Your task to perform on an android device: Show me recent news Image 0: 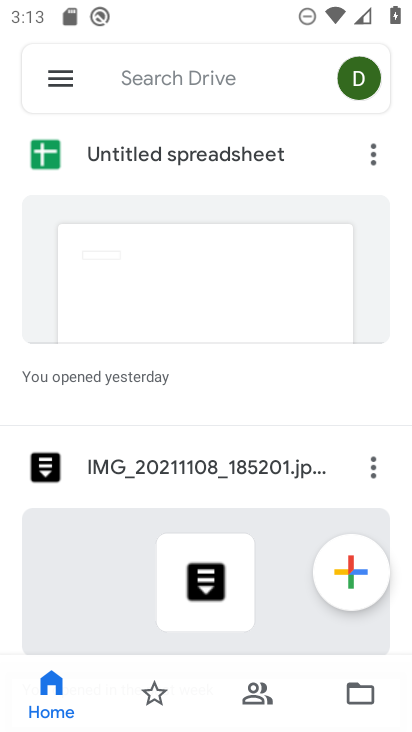
Step 0: press home button
Your task to perform on an android device: Show me recent news Image 1: 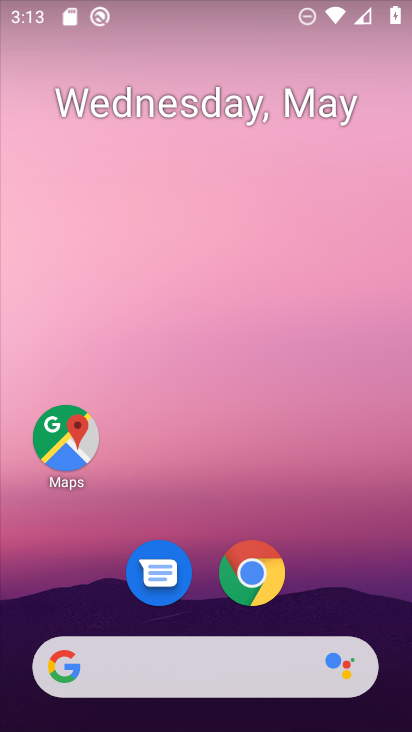
Step 1: drag from (328, 605) to (347, 73)
Your task to perform on an android device: Show me recent news Image 2: 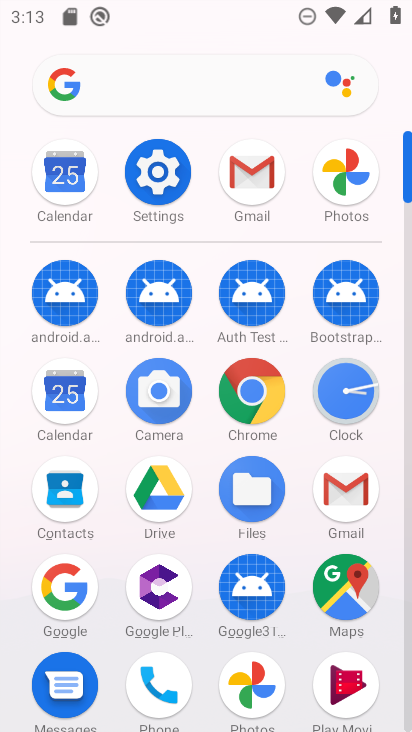
Step 2: click (130, 85)
Your task to perform on an android device: Show me recent news Image 3: 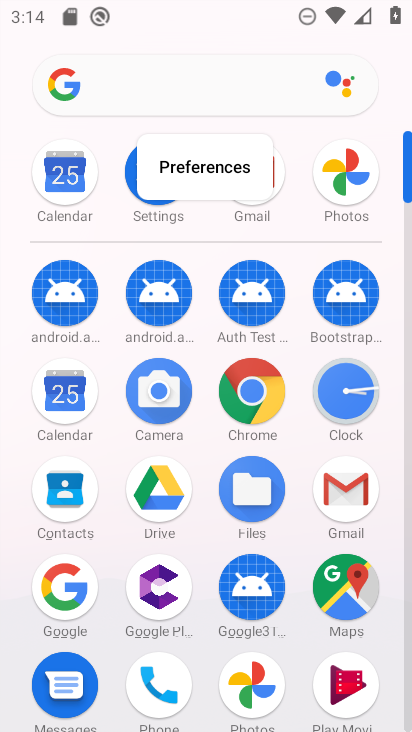
Step 3: click (147, 99)
Your task to perform on an android device: Show me recent news Image 4: 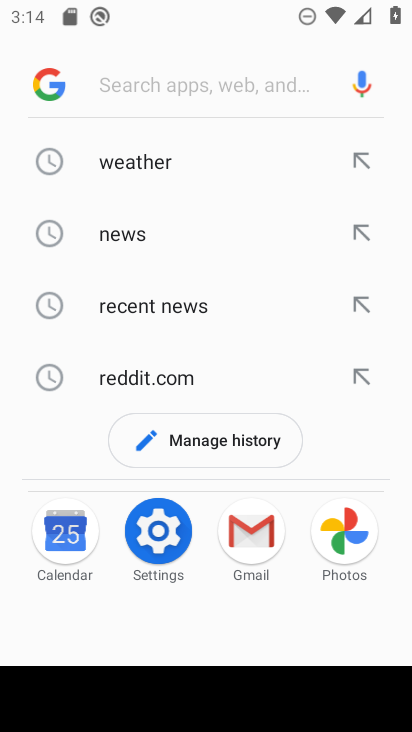
Step 4: type "recent news"
Your task to perform on an android device: Show me recent news Image 5: 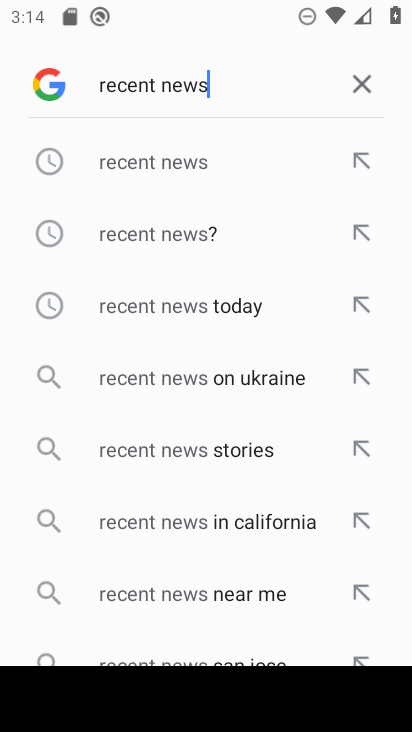
Step 5: click (141, 173)
Your task to perform on an android device: Show me recent news Image 6: 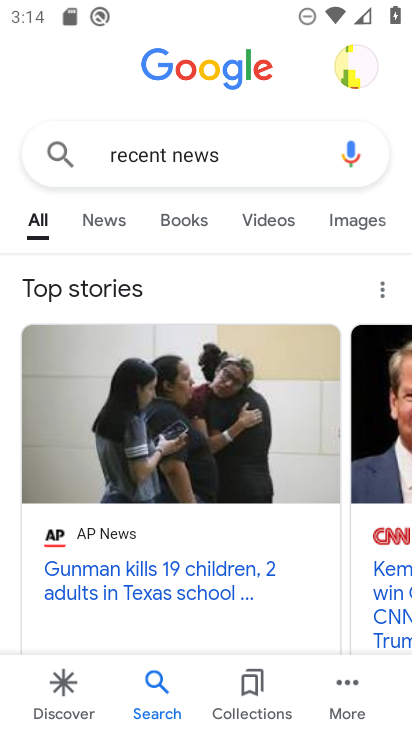
Step 6: click (118, 216)
Your task to perform on an android device: Show me recent news Image 7: 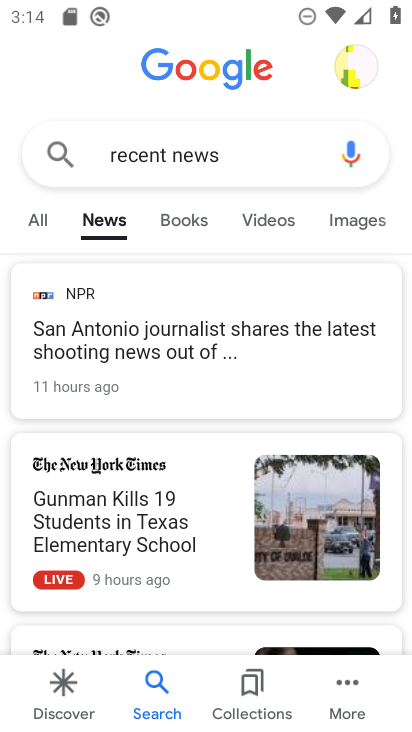
Step 7: task complete